Your task to perform on an android device: Toggle the flashlight Image 0: 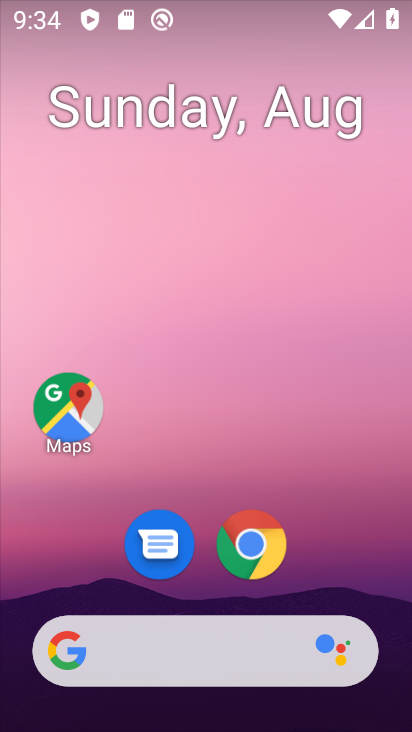
Step 0: drag from (142, 581) to (363, 379)
Your task to perform on an android device: Toggle the flashlight Image 1: 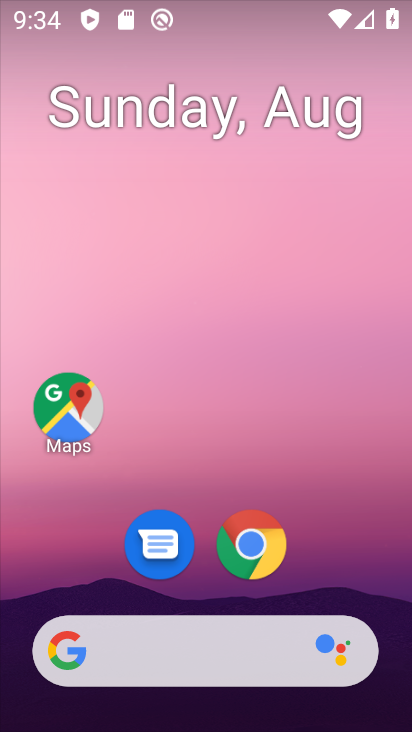
Step 1: drag from (206, 615) to (209, 28)
Your task to perform on an android device: Toggle the flashlight Image 2: 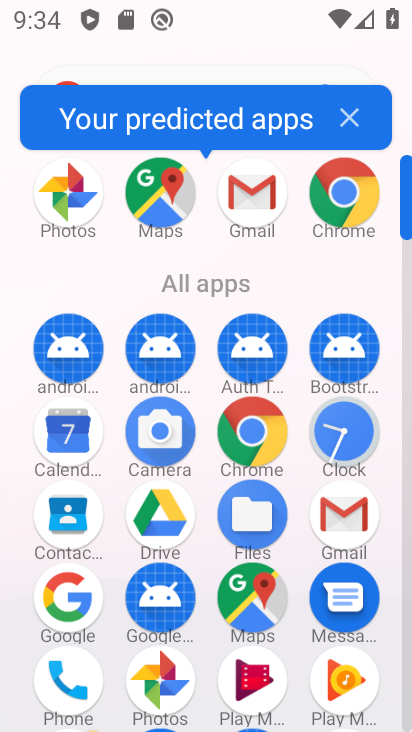
Step 2: drag from (199, 558) to (175, 54)
Your task to perform on an android device: Toggle the flashlight Image 3: 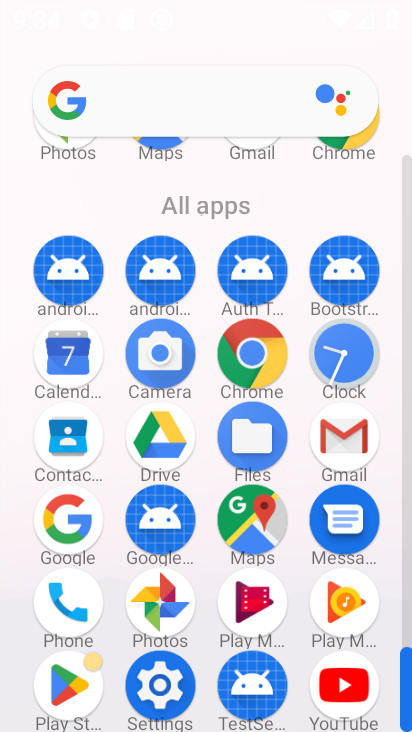
Step 3: click (173, 682)
Your task to perform on an android device: Toggle the flashlight Image 4: 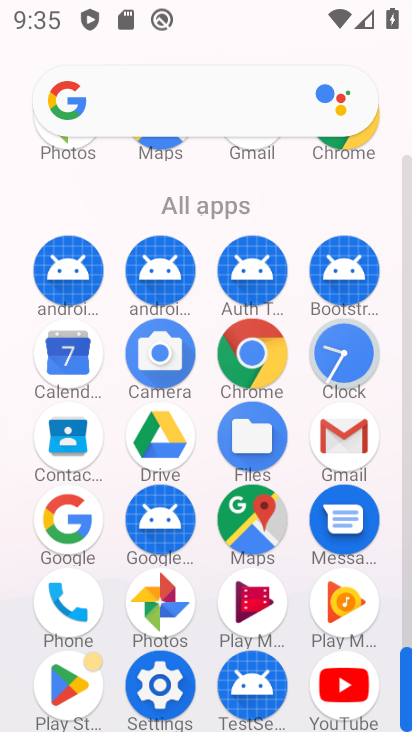
Step 4: click (174, 665)
Your task to perform on an android device: Toggle the flashlight Image 5: 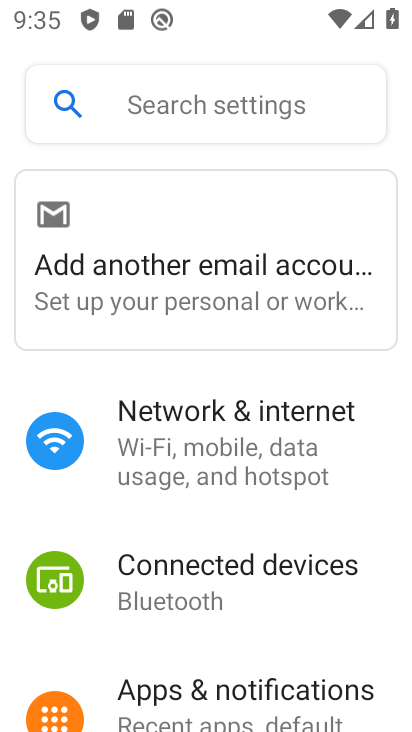
Step 5: task complete